Your task to perform on an android device: Search for pizza restaurants on Maps Image 0: 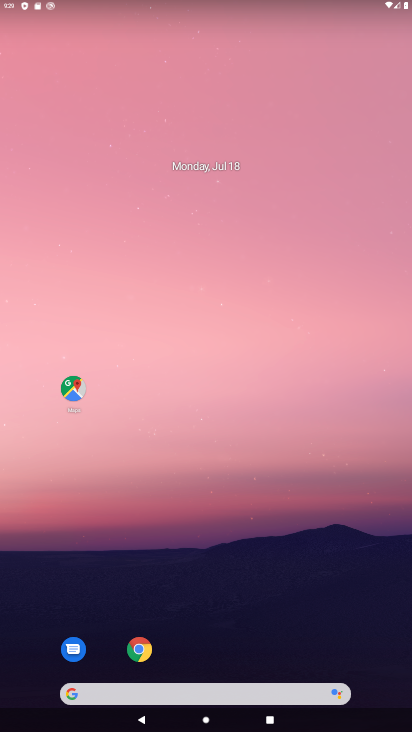
Step 0: click (52, 385)
Your task to perform on an android device: Search for pizza restaurants on Maps Image 1: 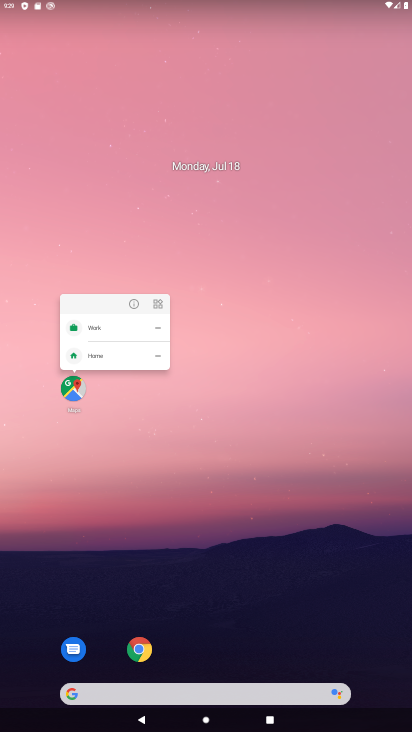
Step 1: click (57, 372)
Your task to perform on an android device: Search for pizza restaurants on Maps Image 2: 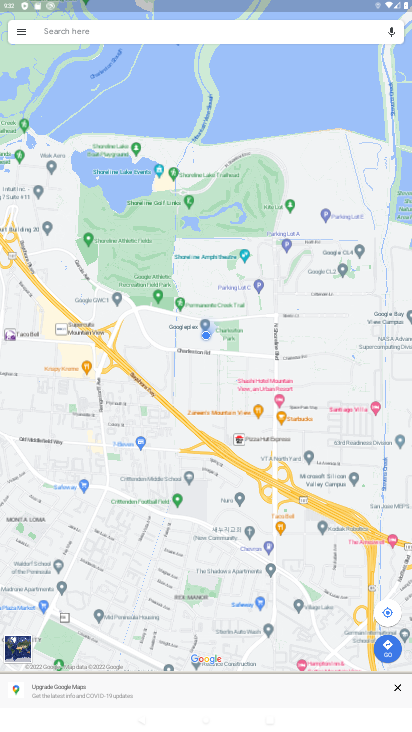
Step 2: click (157, 29)
Your task to perform on an android device: Search for pizza restaurants on Maps Image 3: 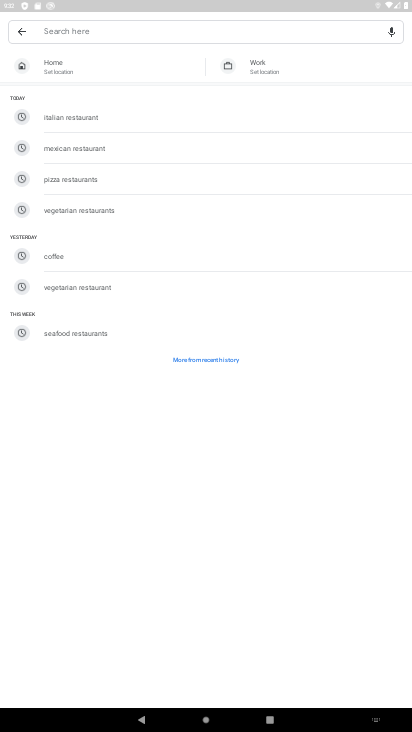
Step 3: click (99, 180)
Your task to perform on an android device: Search for pizza restaurants on Maps Image 4: 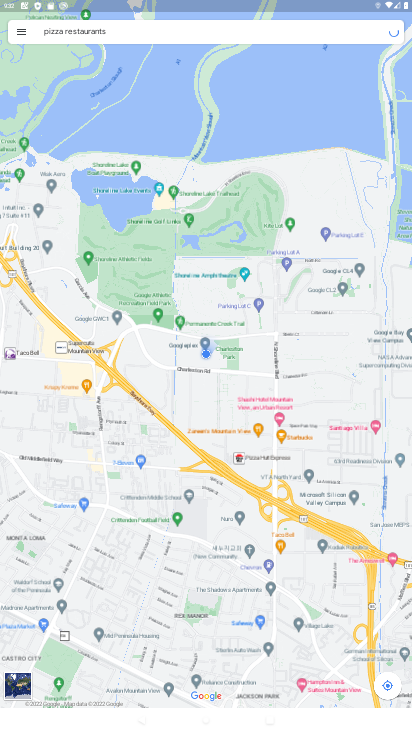
Step 4: click (161, 20)
Your task to perform on an android device: Search for pizza restaurants on Maps Image 5: 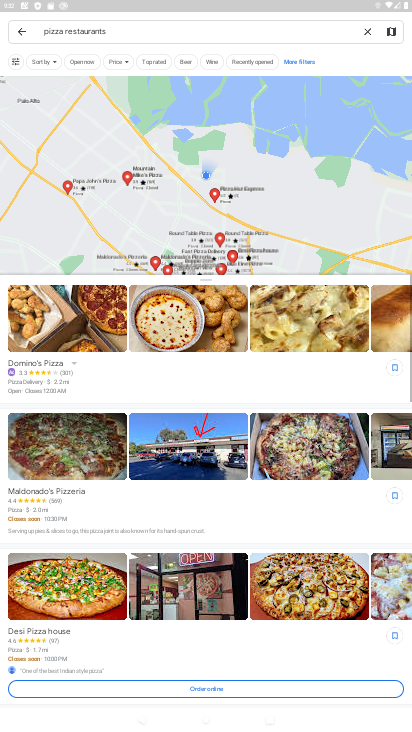
Step 5: task complete